Your task to perform on an android device: Do I have any events today? Image 0: 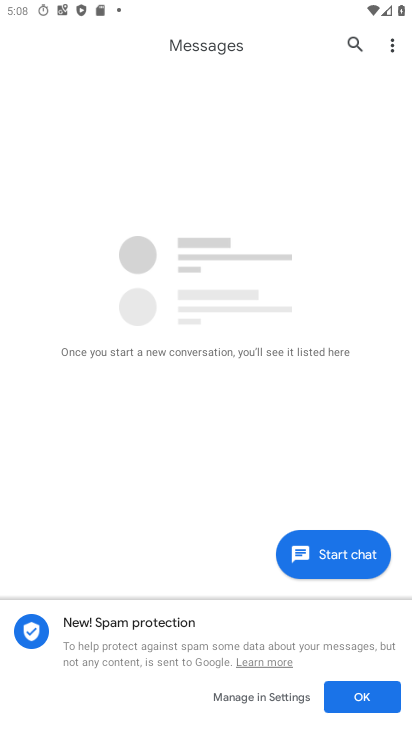
Step 0: press home button
Your task to perform on an android device: Do I have any events today? Image 1: 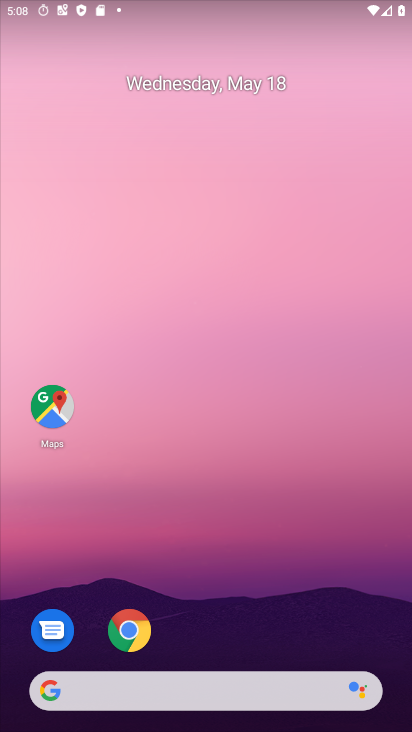
Step 1: drag from (186, 631) to (194, 200)
Your task to perform on an android device: Do I have any events today? Image 2: 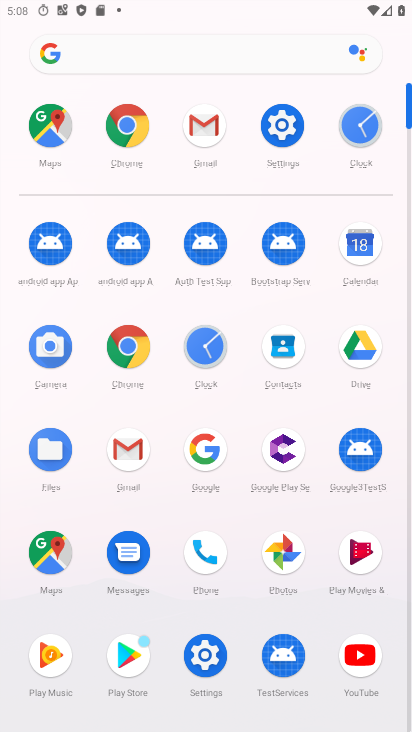
Step 2: click (362, 250)
Your task to perform on an android device: Do I have any events today? Image 3: 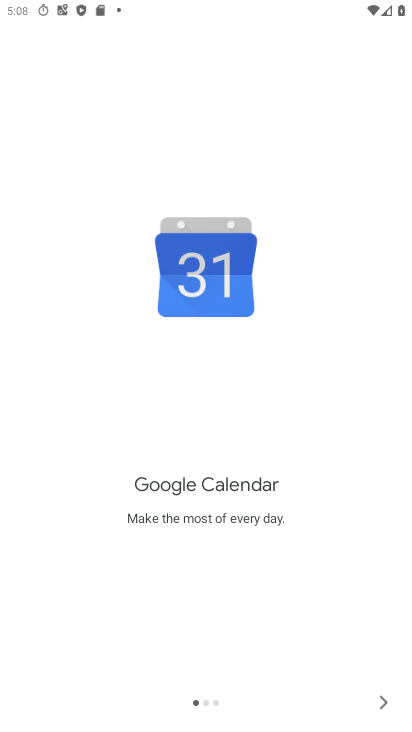
Step 3: click (383, 702)
Your task to perform on an android device: Do I have any events today? Image 4: 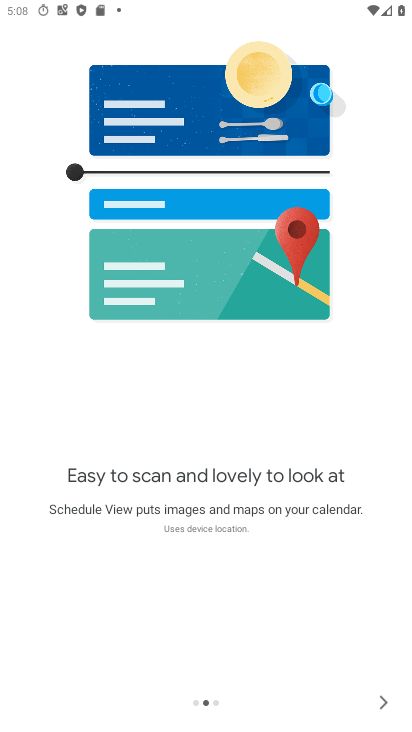
Step 4: click (383, 702)
Your task to perform on an android device: Do I have any events today? Image 5: 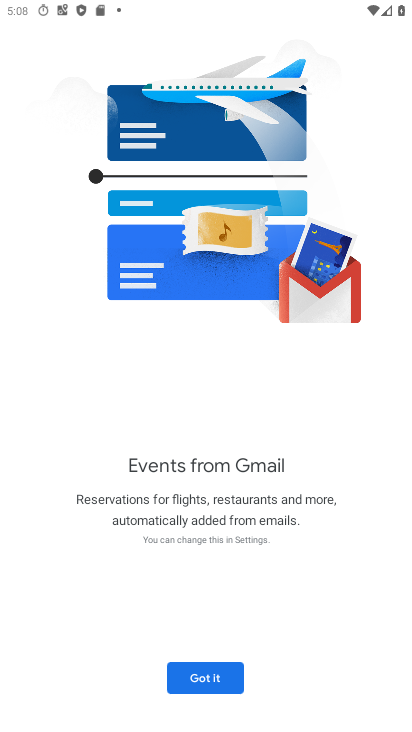
Step 5: click (220, 679)
Your task to perform on an android device: Do I have any events today? Image 6: 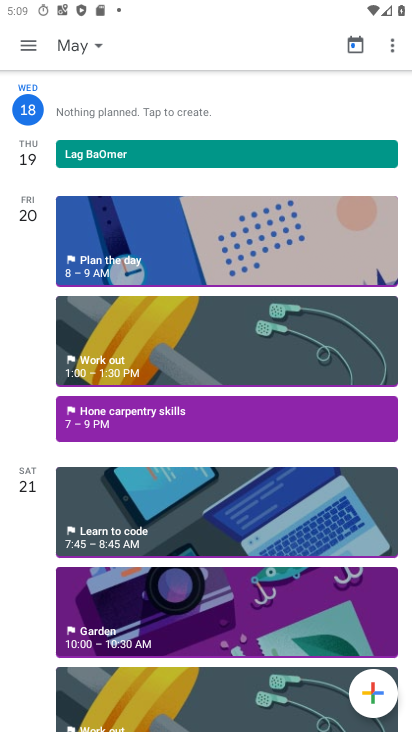
Step 6: click (156, 112)
Your task to perform on an android device: Do I have any events today? Image 7: 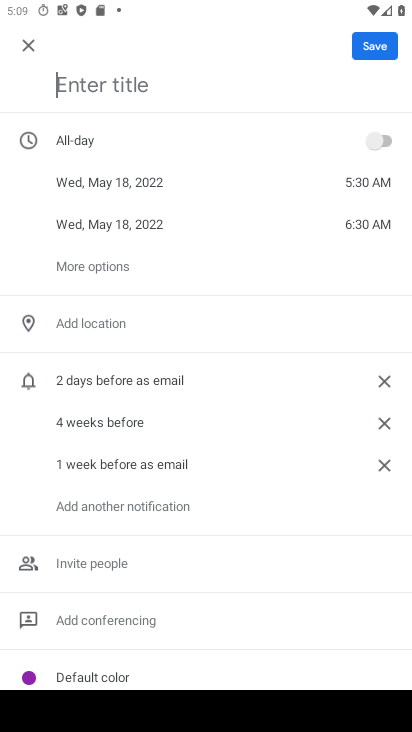
Step 7: task complete